Your task to perform on an android device: open sync settings in chrome Image 0: 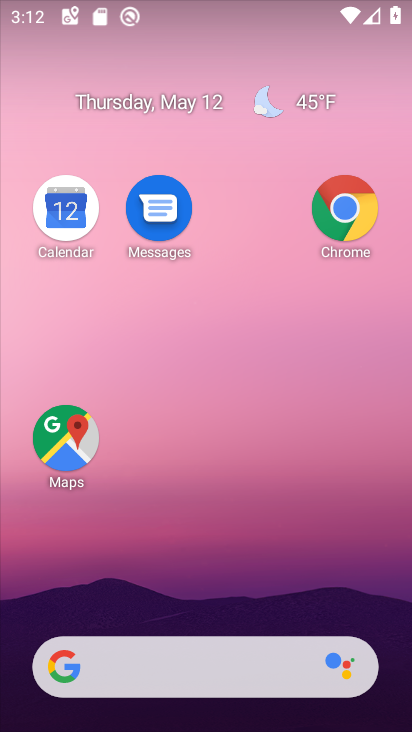
Step 0: drag from (227, 513) to (198, 0)
Your task to perform on an android device: open sync settings in chrome Image 1: 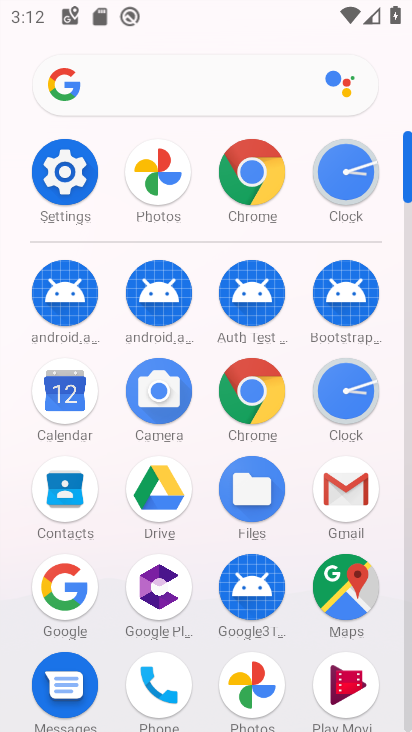
Step 1: click (242, 147)
Your task to perform on an android device: open sync settings in chrome Image 2: 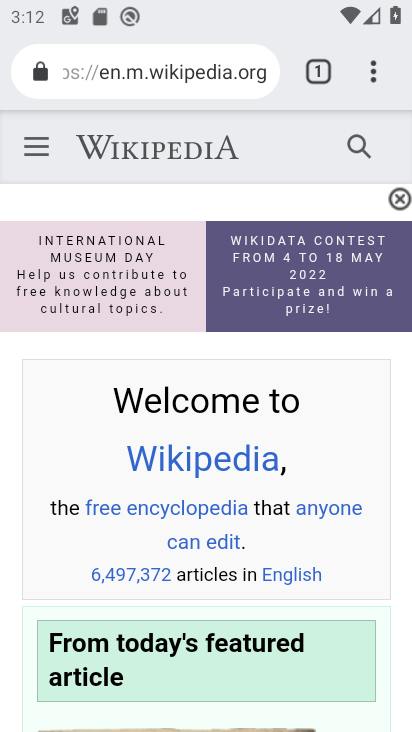
Step 2: task complete